Your task to perform on an android device: Open Wikipedia Image 0: 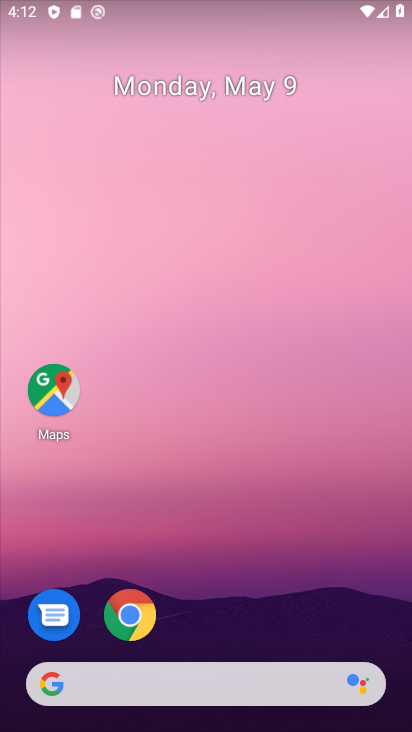
Step 0: click (134, 631)
Your task to perform on an android device: Open Wikipedia Image 1: 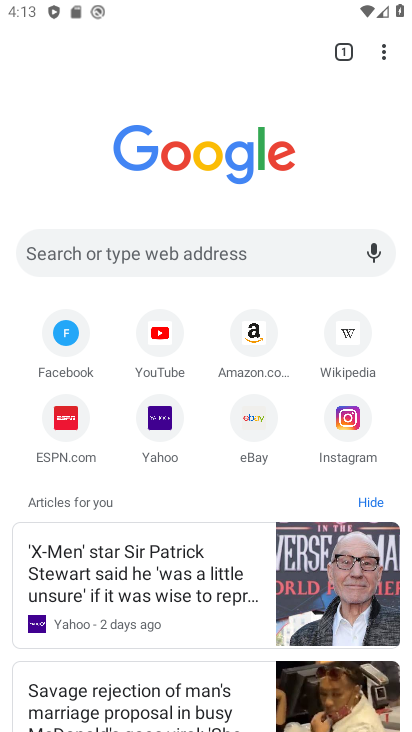
Step 1: click (346, 339)
Your task to perform on an android device: Open Wikipedia Image 2: 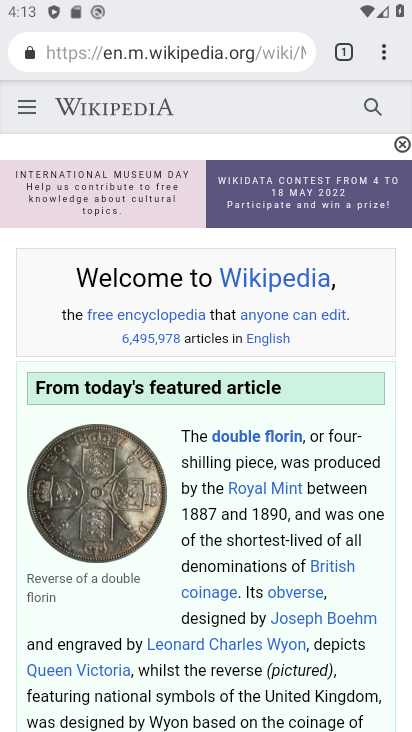
Step 2: task complete